Your task to perform on an android device: Go to location settings Image 0: 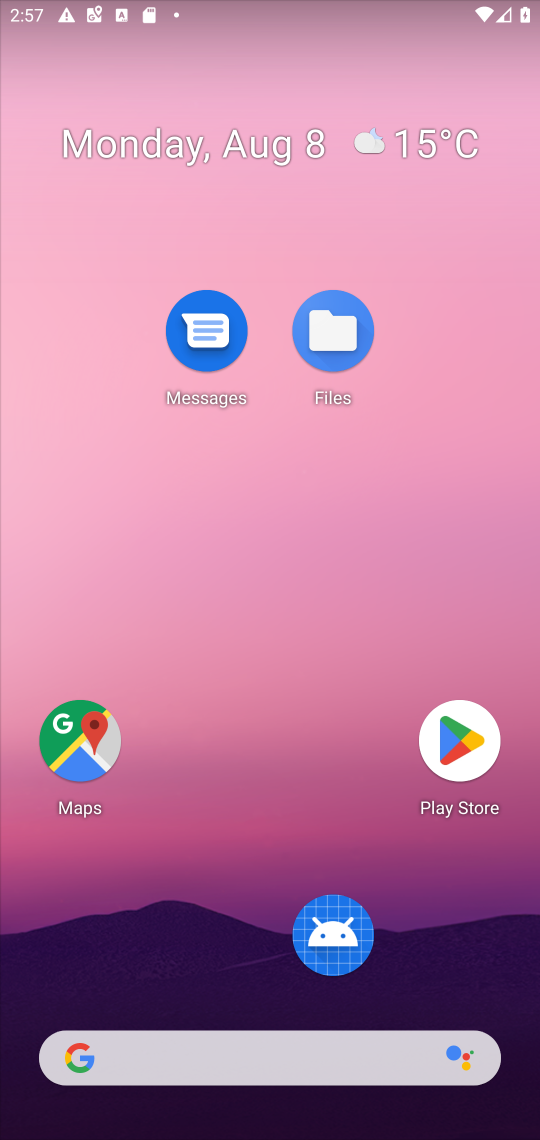
Step 0: drag from (208, 1040) to (202, 24)
Your task to perform on an android device: Go to location settings Image 1: 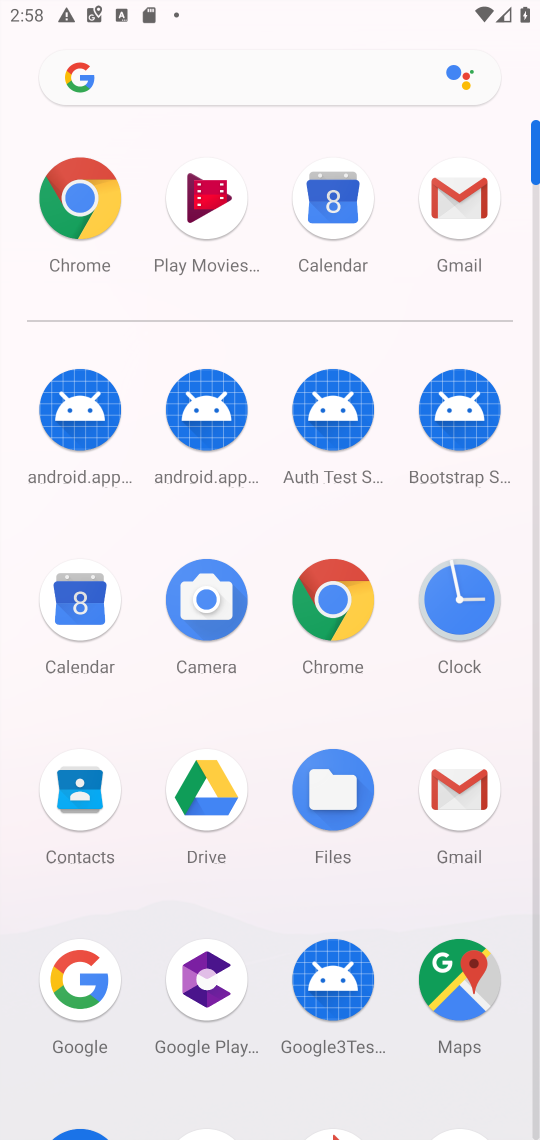
Step 1: drag from (385, 904) to (378, 377)
Your task to perform on an android device: Go to location settings Image 2: 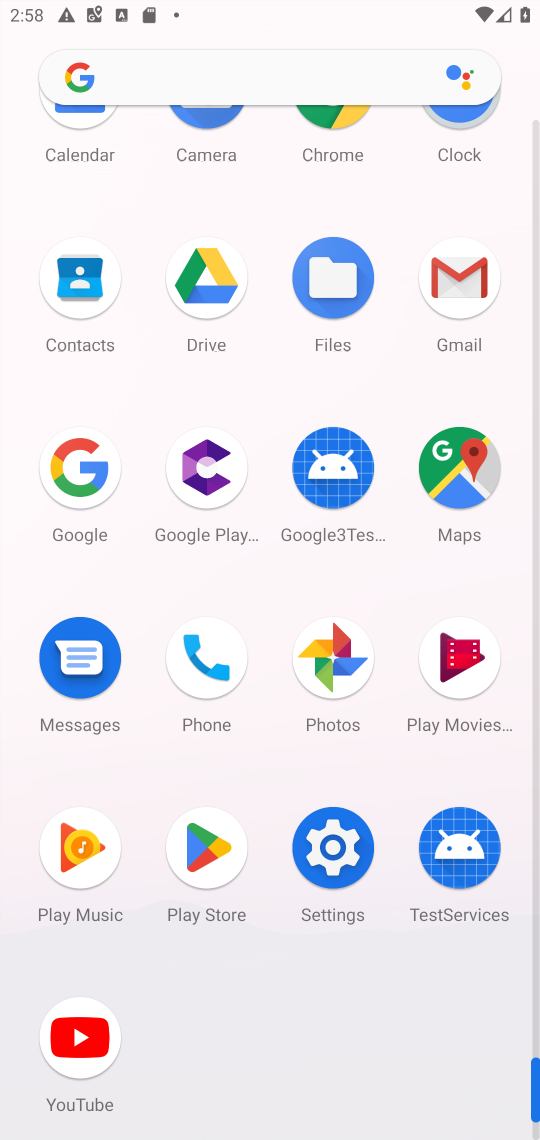
Step 2: click (329, 868)
Your task to perform on an android device: Go to location settings Image 3: 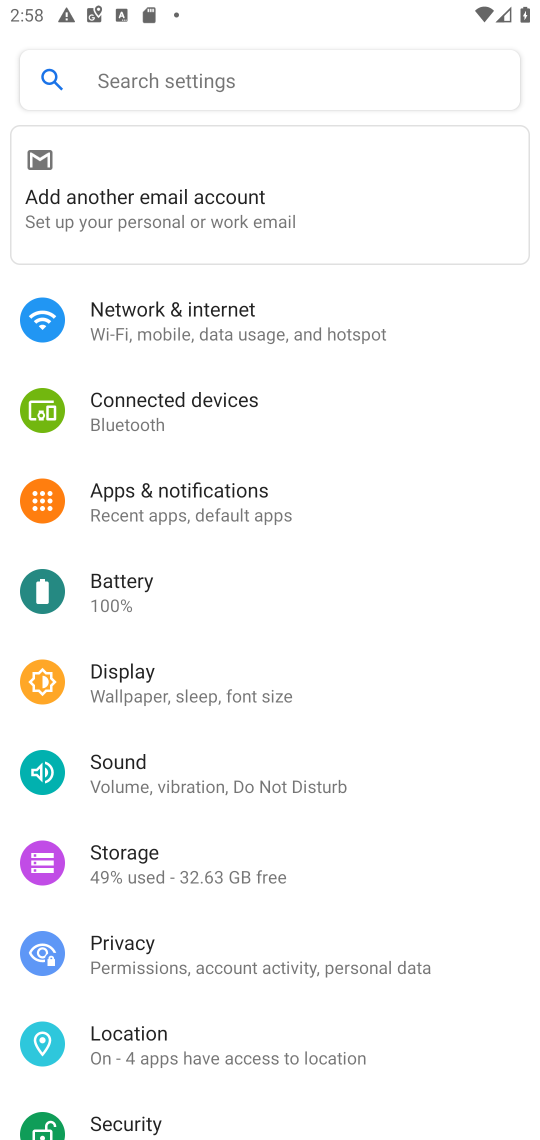
Step 3: click (164, 1038)
Your task to perform on an android device: Go to location settings Image 4: 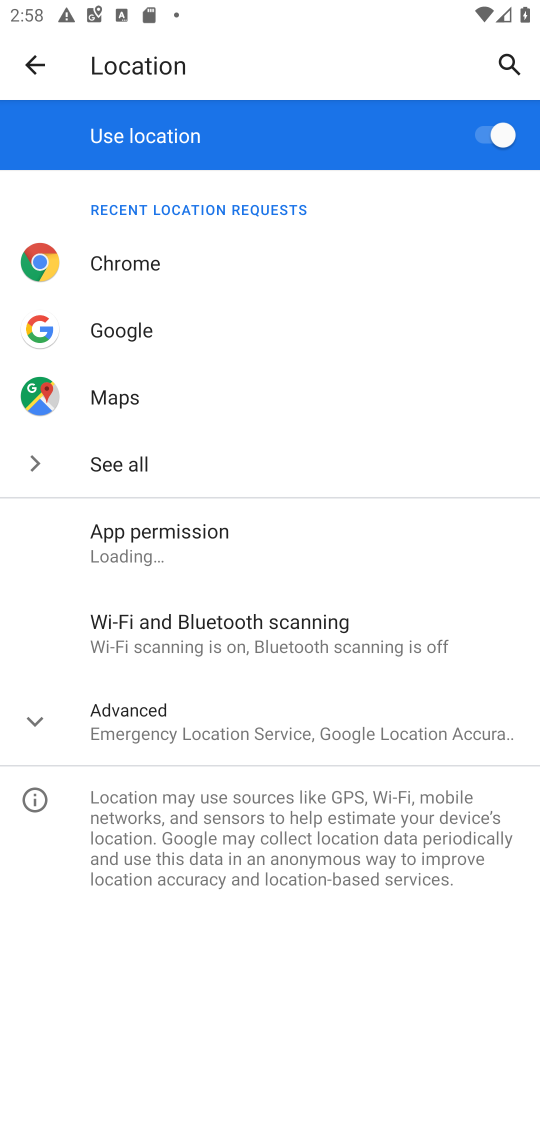
Step 4: task complete